Your task to perform on an android device: turn on notifications settings in the gmail app Image 0: 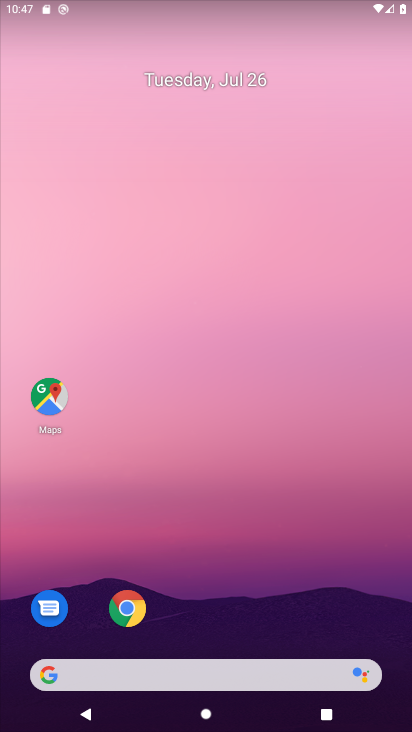
Step 0: drag from (303, 588) to (175, 71)
Your task to perform on an android device: turn on notifications settings in the gmail app Image 1: 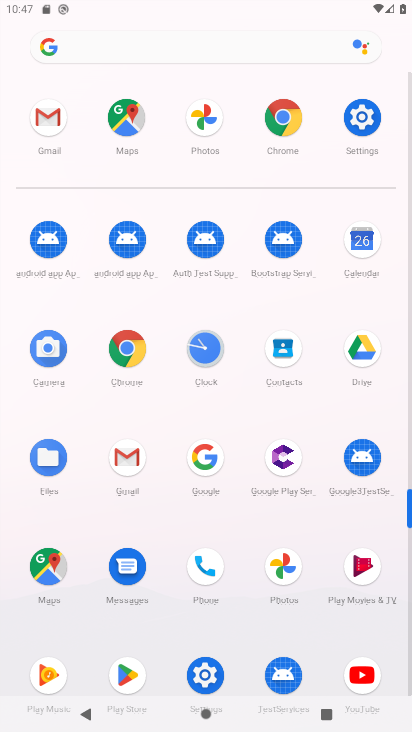
Step 1: click (127, 469)
Your task to perform on an android device: turn on notifications settings in the gmail app Image 2: 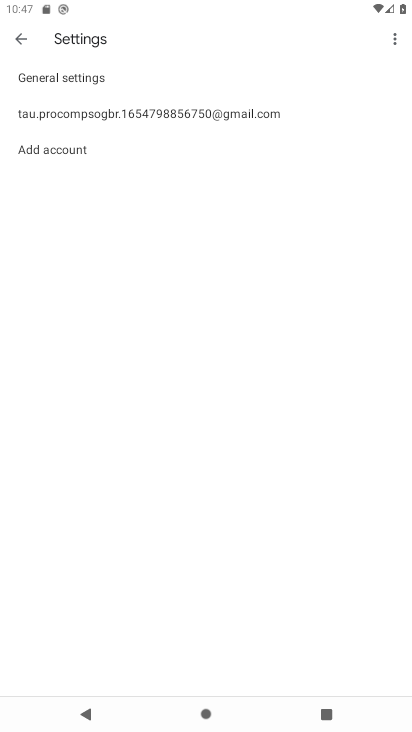
Step 2: click (145, 119)
Your task to perform on an android device: turn on notifications settings in the gmail app Image 3: 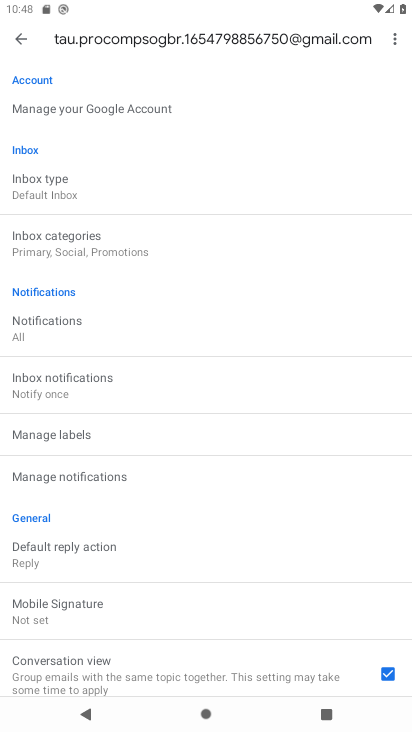
Step 3: click (83, 478)
Your task to perform on an android device: turn on notifications settings in the gmail app Image 4: 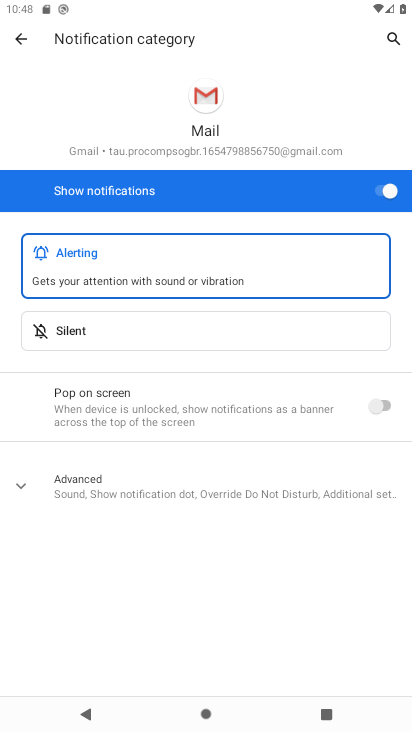
Step 4: task complete